Your task to perform on an android device: Open the Play Movies app and select the watchlist tab. Image 0: 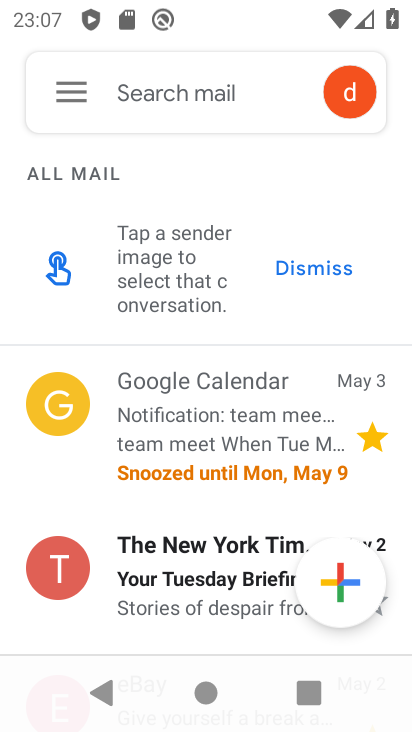
Step 0: press home button
Your task to perform on an android device: Open the Play Movies app and select the watchlist tab. Image 1: 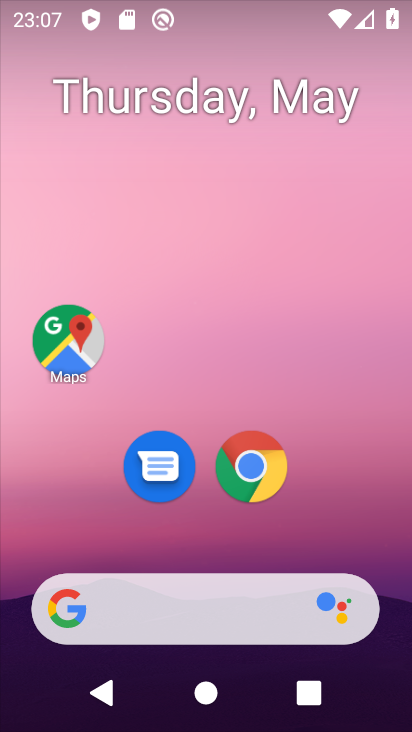
Step 1: drag from (300, 489) to (258, 41)
Your task to perform on an android device: Open the Play Movies app and select the watchlist tab. Image 2: 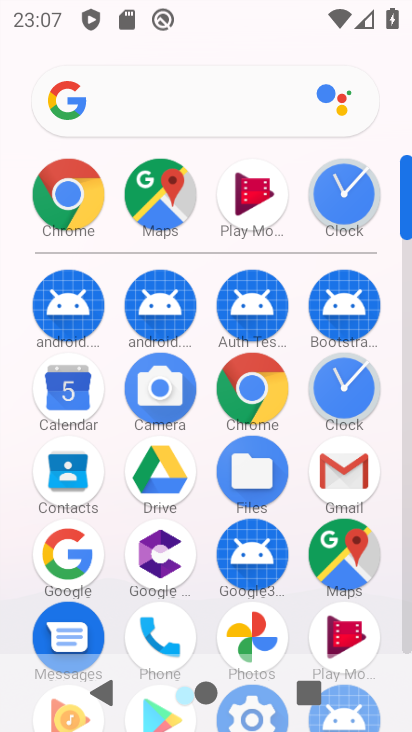
Step 2: click (258, 188)
Your task to perform on an android device: Open the Play Movies app and select the watchlist tab. Image 3: 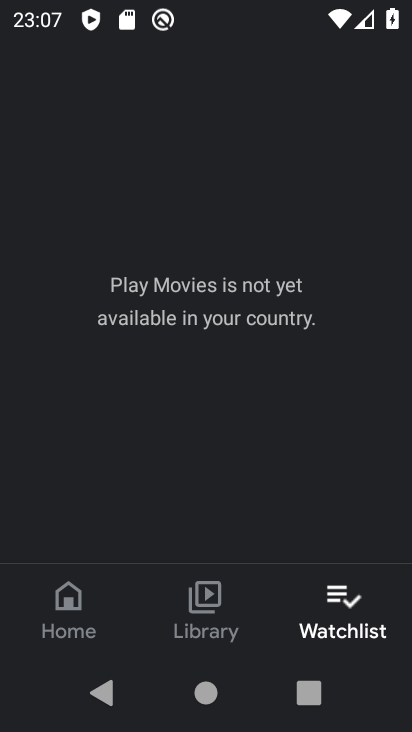
Step 3: task complete